Your task to perform on an android device: toggle improve location accuracy Image 0: 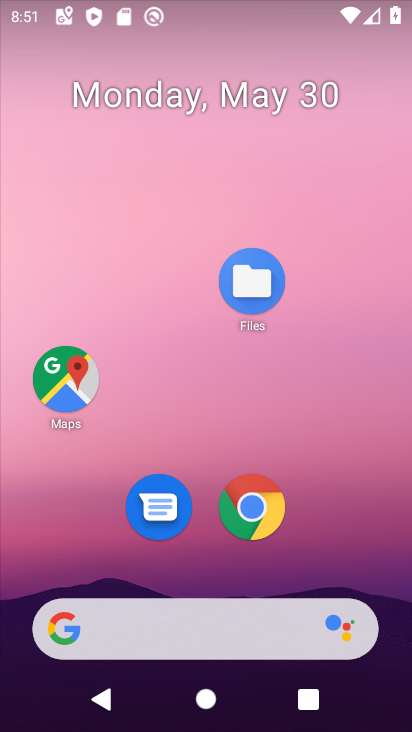
Step 0: drag from (219, 570) to (216, 333)
Your task to perform on an android device: toggle improve location accuracy Image 1: 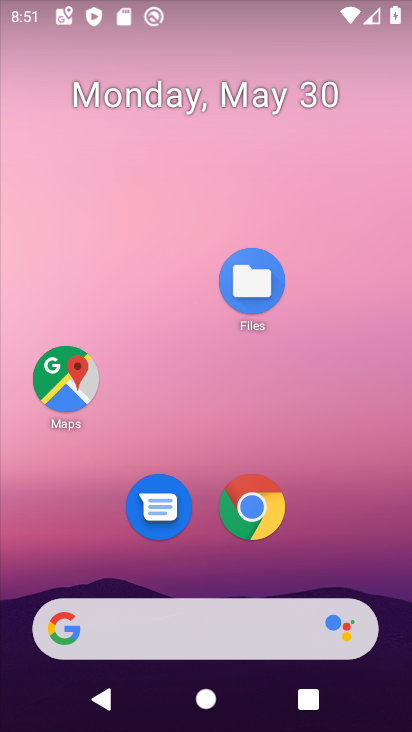
Step 1: drag from (186, 551) to (222, 219)
Your task to perform on an android device: toggle improve location accuracy Image 2: 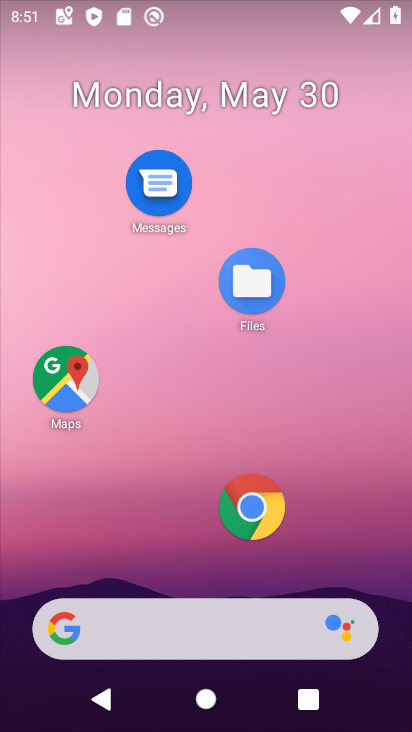
Step 2: drag from (192, 525) to (258, 229)
Your task to perform on an android device: toggle improve location accuracy Image 3: 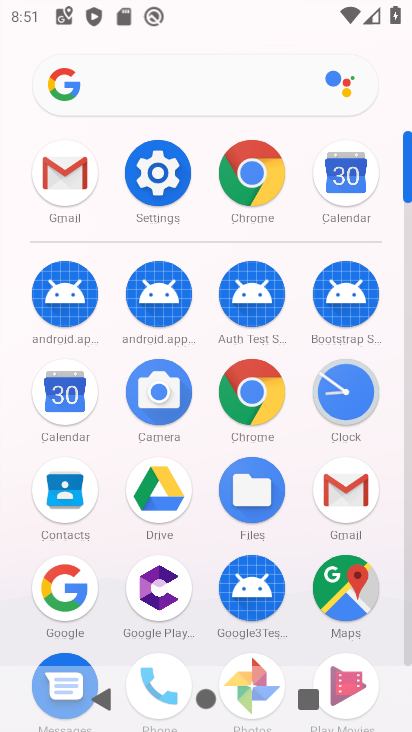
Step 3: click (166, 190)
Your task to perform on an android device: toggle improve location accuracy Image 4: 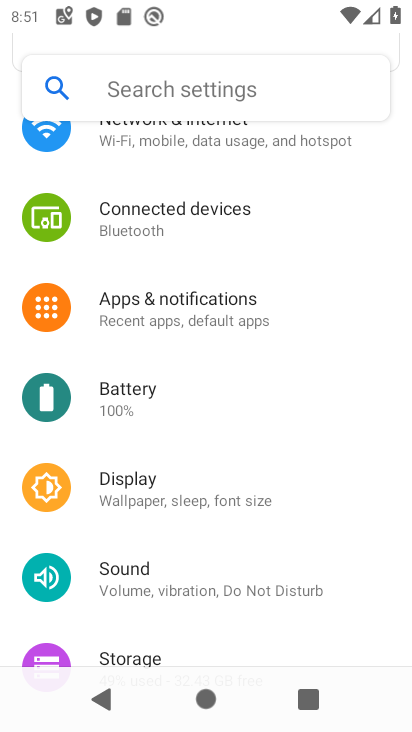
Step 4: drag from (192, 611) to (296, 139)
Your task to perform on an android device: toggle improve location accuracy Image 5: 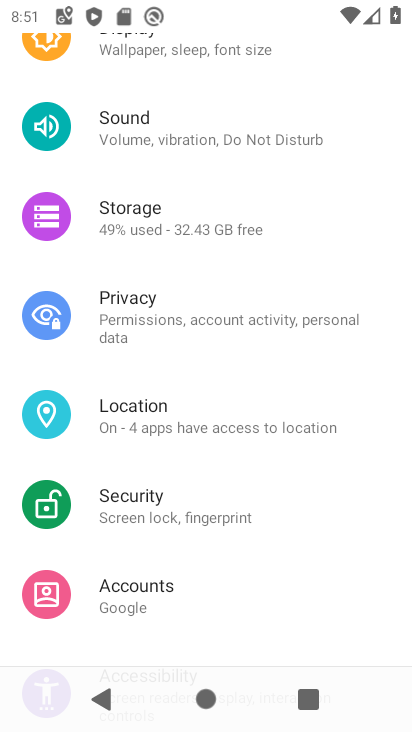
Step 5: click (212, 433)
Your task to perform on an android device: toggle improve location accuracy Image 6: 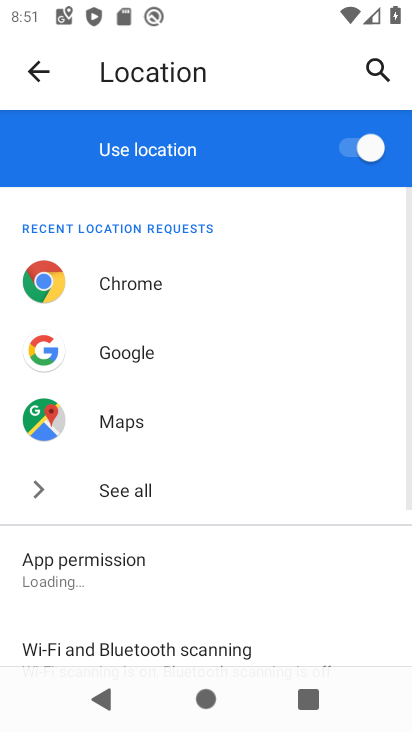
Step 6: drag from (172, 556) to (238, 303)
Your task to perform on an android device: toggle improve location accuracy Image 7: 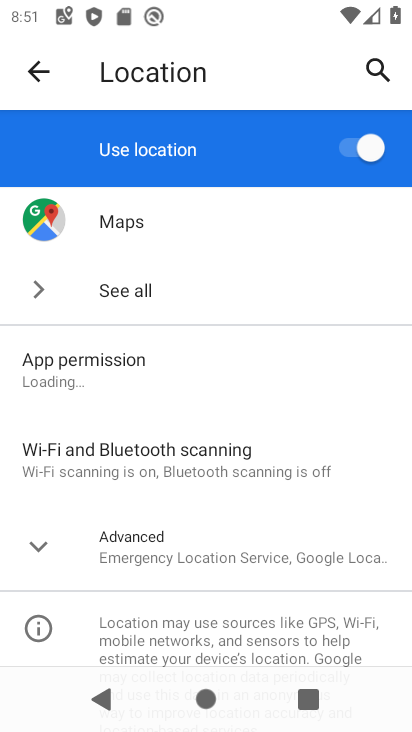
Step 7: click (214, 551)
Your task to perform on an android device: toggle improve location accuracy Image 8: 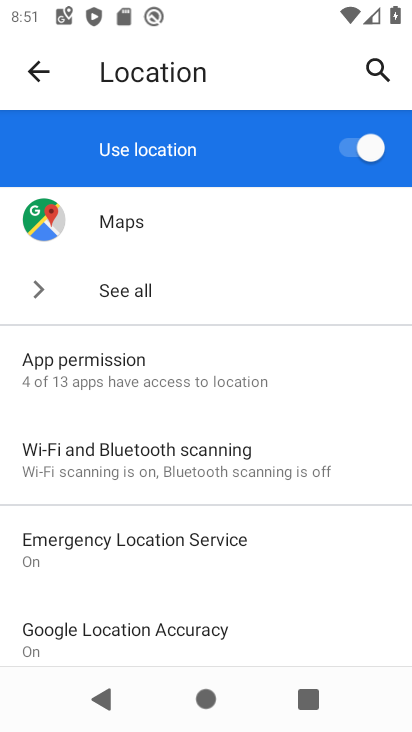
Step 8: drag from (202, 608) to (261, 369)
Your task to perform on an android device: toggle improve location accuracy Image 9: 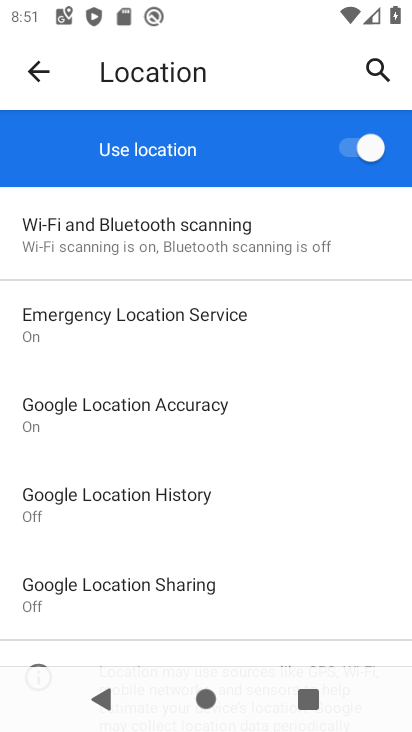
Step 9: click (161, 415)
Your task to perform on an android device: toggle improve location accuracy Image 10: 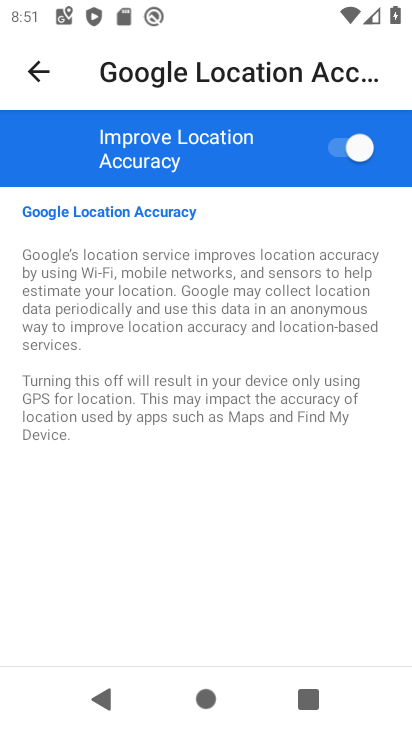
Step 10: click (316, 166)
Your task to perform on an android device: toggle improve location accuracy Image 11: 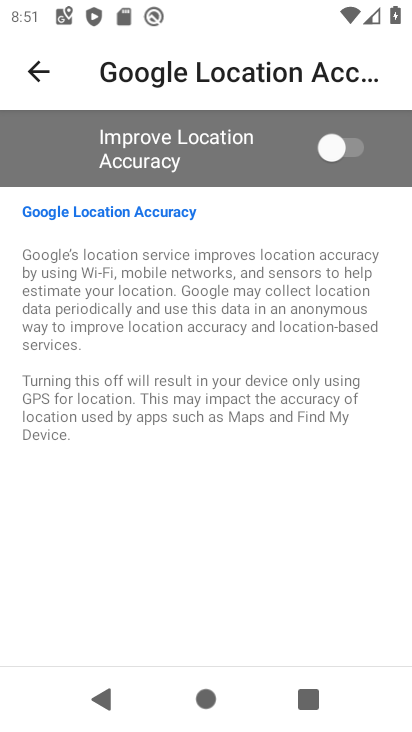
Step 11: task complete